Your task to perform on an android device: Search for Italian restaurants on Maps Image 0: 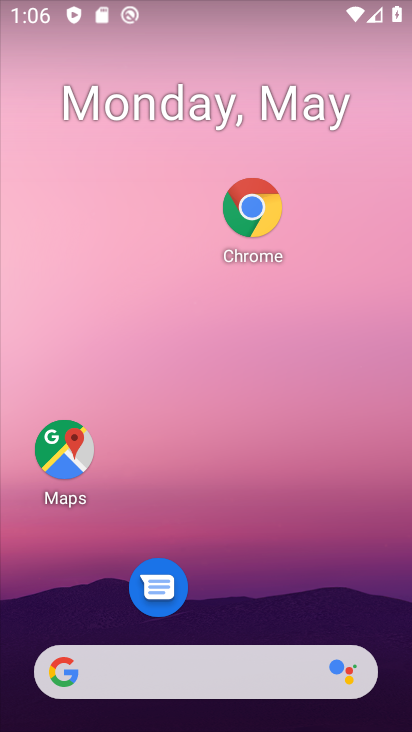
Step 0: click (75, 456)
Your task to perform on an android device: Search for Italian restaurants on Maps Image 1: 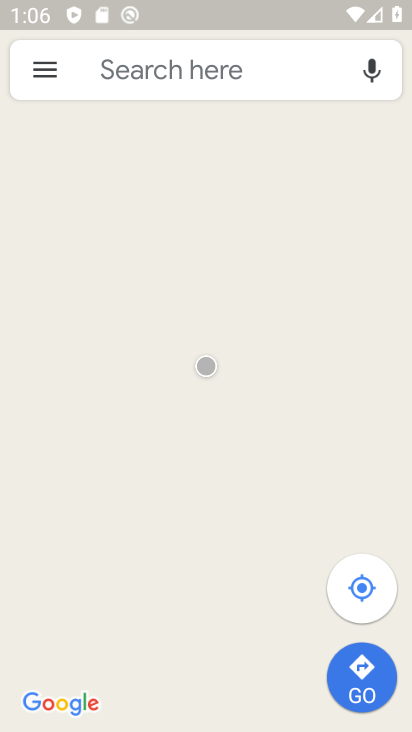
Step 1: click (123, 73)
Your task to perform on an android device: Search for Italian restaurants on Maps Image 2: 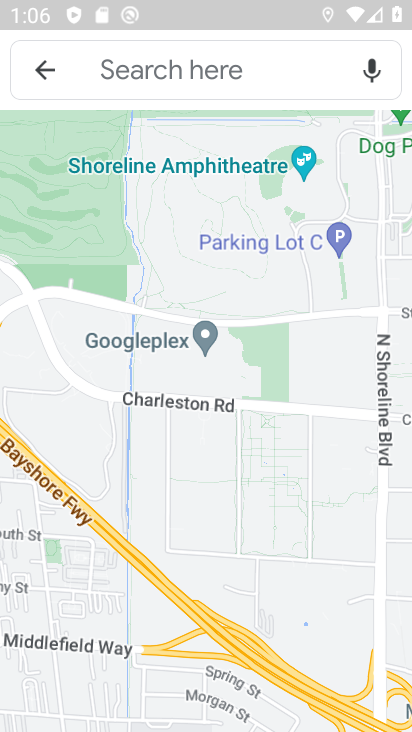
Step 2: click (123, 73)
Your task to perform on an android device: Search for Italian restaurants on Maps Image 3: 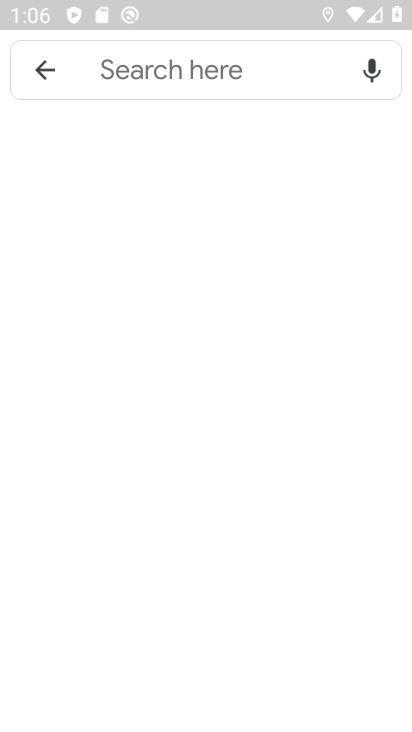
Step 3: click (123, 73)
Your task to perform on an android device: Search for Italian restaurants on Maps Image 4: 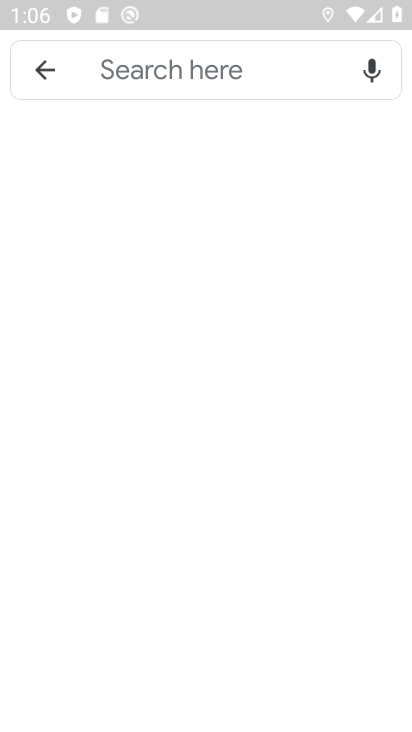
Step 4: click (123, 73)
Your task to perform on an android device: Search for Italian restaurants on Maps Image 5: 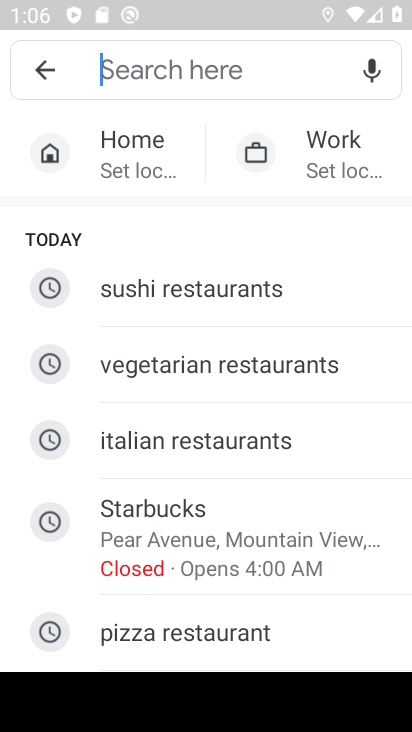
Step 5: click (123, 73)
Your task to perform on an android device: Search for Italian restaurants on Maps Image 6: 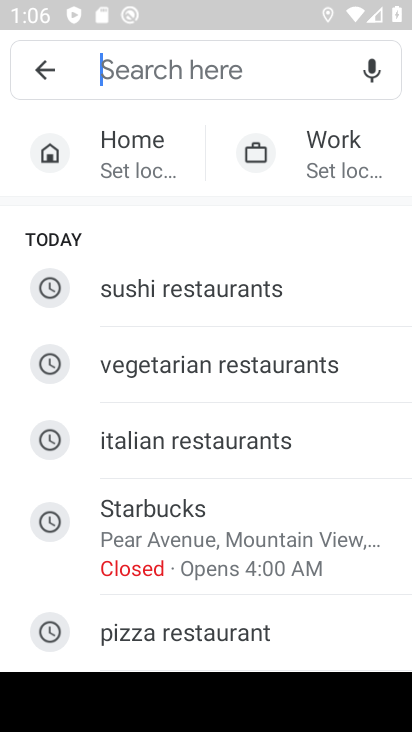
Step 6: type "italian reastuarent"
Your task to perform on an android device: Search for Italian restaurants on Maps Image 7: 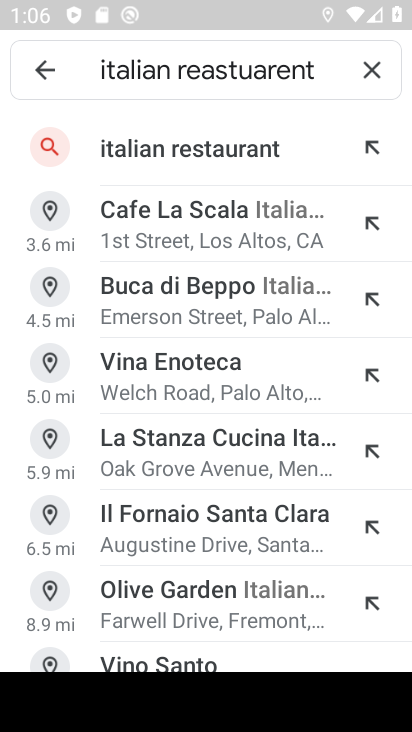
Step 7: click (241, 162)
Your task to perform on an android device: Search for Italian restaurants on Maps Image 8: 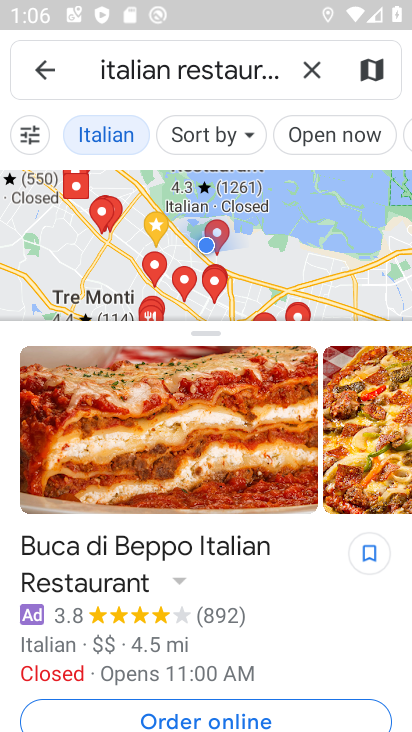
Step 8: task complete